Your task to perform on an android device: turn on airplane mode Image 0: 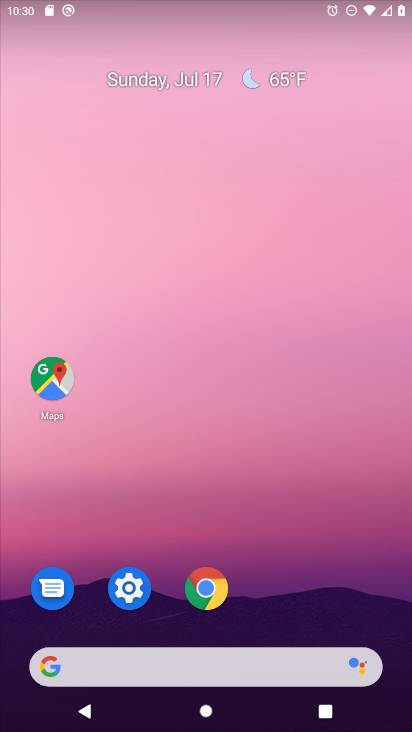
Step 0: drag from (276, 669) to (164, 10)
Your task to perform on an android device: turn on airplane mode Image 1: 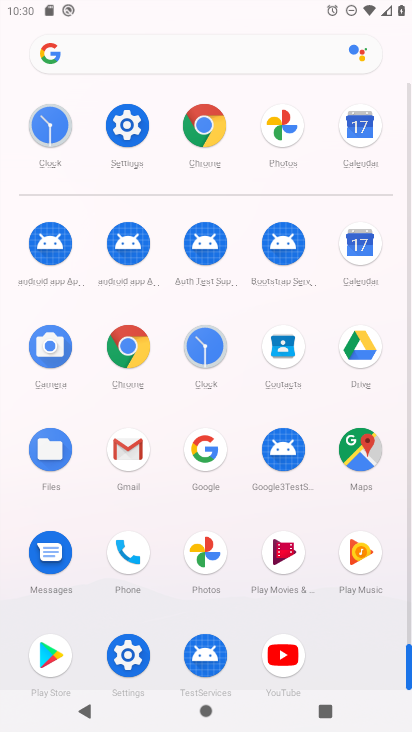
Step 1: click (124, 141)
Your task to perform on an android device: turn on airplane mode Image 2: 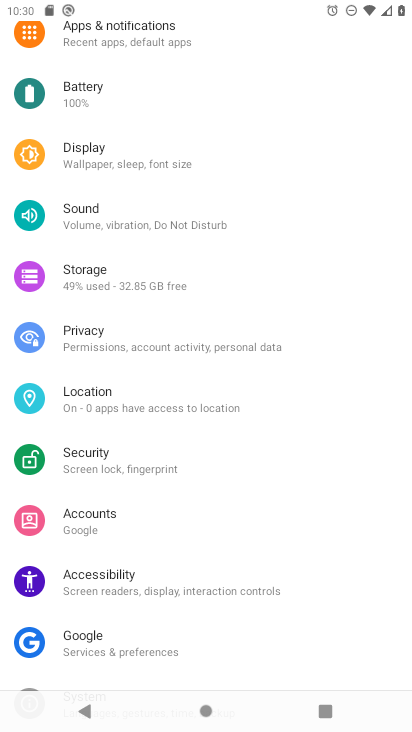
Step 2: drag from (141, 141) to (89, 500)
Your task to perform on an android device: turn on airplane mode Image 3: 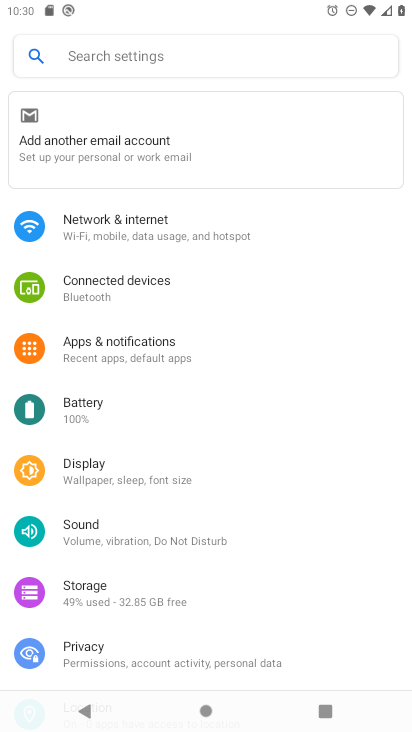
Step 3: drag from (176, 176) to (167, 410)
Your task to perform on an android device: turn on airplane mode Image 4: 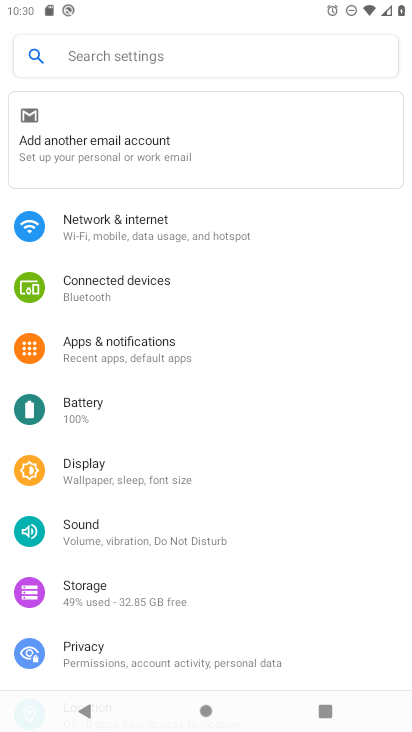
Step 4: click (136, 217)
Your task to perform on an android device: turn on airplane mode Image 5: 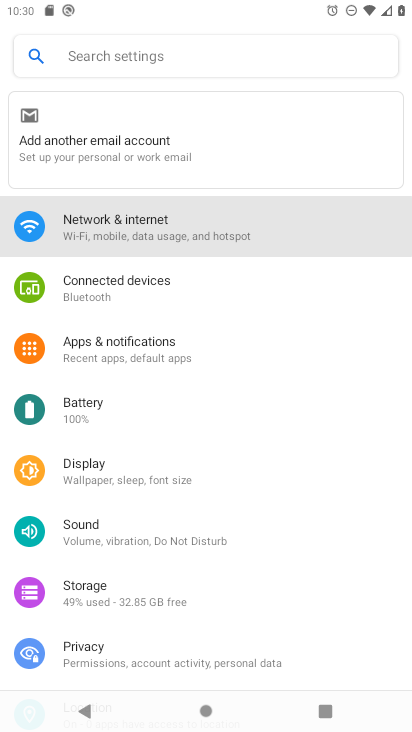
Step 5: click (137, 217)
Your task to perform on an android device: turn on airplane mode Image 6: 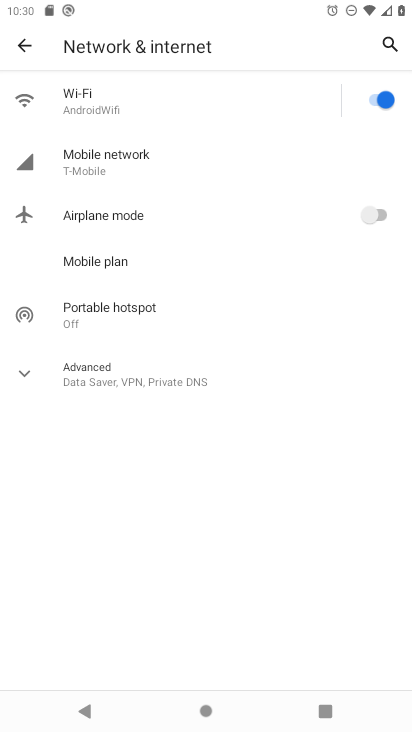
Step 6: click (353, 206)
Your task to perform on an android device: turn on airplane mode Image 7: 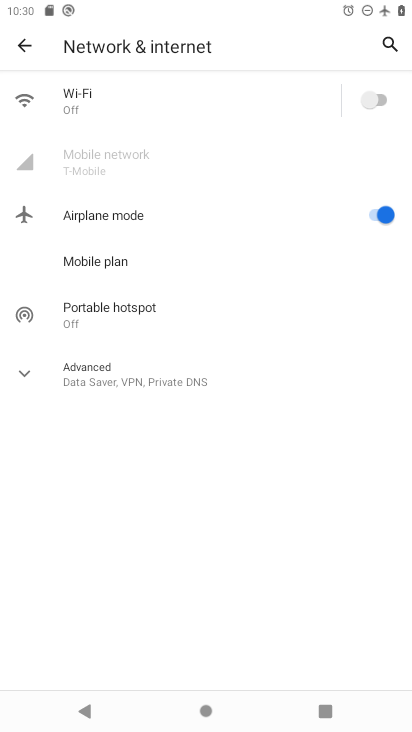
Step 7: task complete